Your task to perform on an android device: Go to settings Image 0: 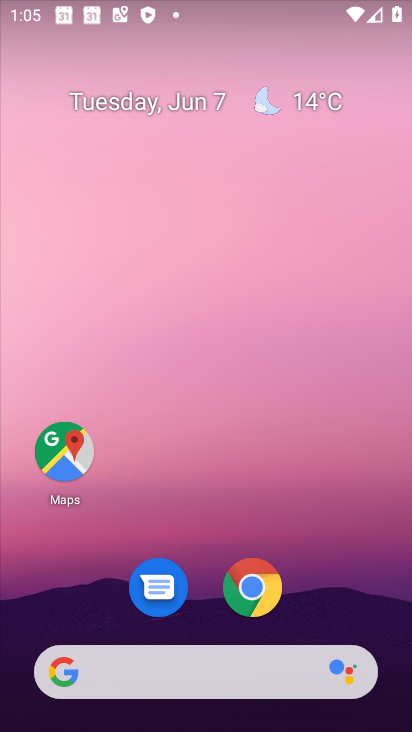
Step 0: drag from (263, 635) to (248, 316)
Your task to perform on an android device: Go to settings Image 1: 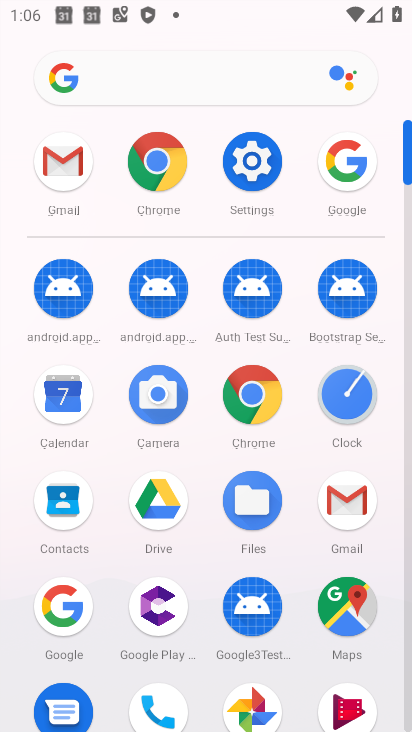
Step 1: click (246, 171)
Your task to perform on an android device: Go to settings Image 2: 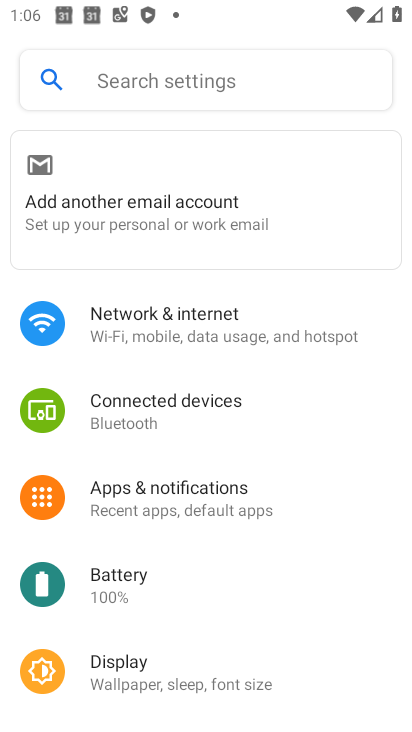
Step 2: task complete